Your task to perform on an android device: Open Chrome and go to settings Image 0: 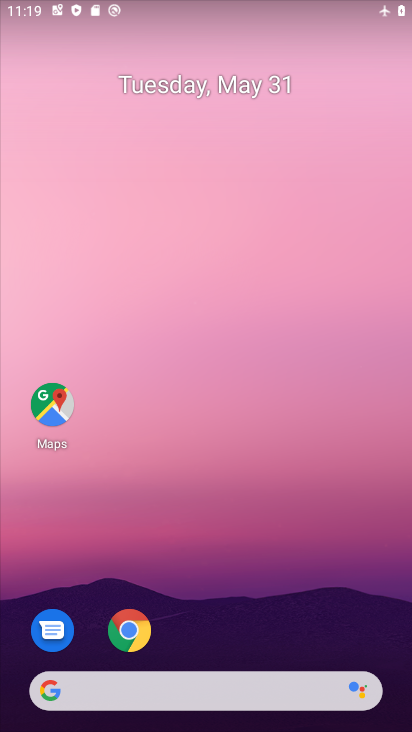
Step 0: drag from (274, 637) to (265, 154)
Your task to perform on an android device: Open Chrome and go to settings Image 1: 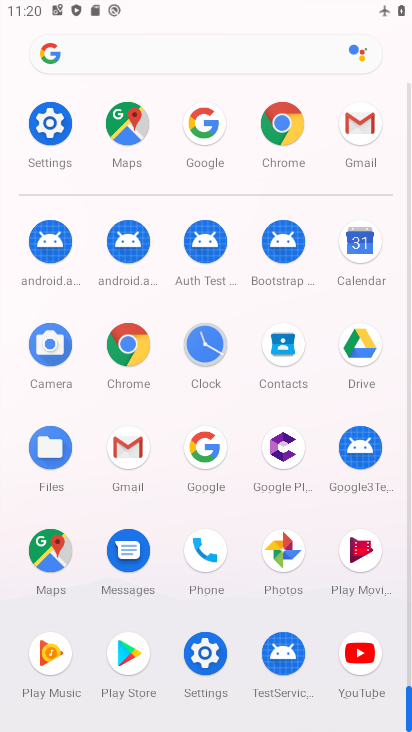
Step 1: click (127, 357)
Your task to perform on an android device: Open Chrome and go to settings Image 2: 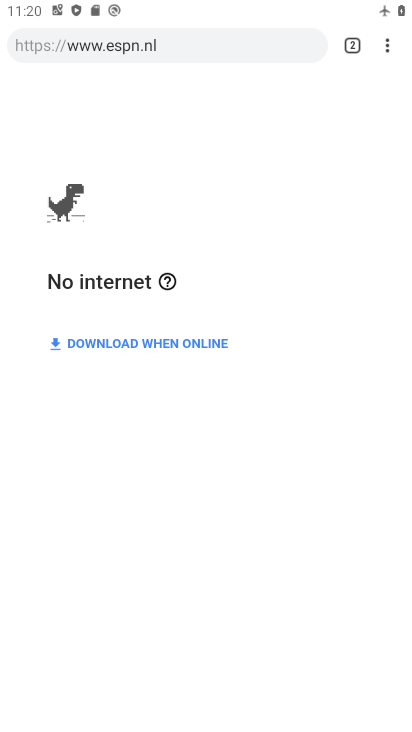
Step 2: click (388, 49)
Your task to perform on an android device: Open Chrome and go to settings Image 3: 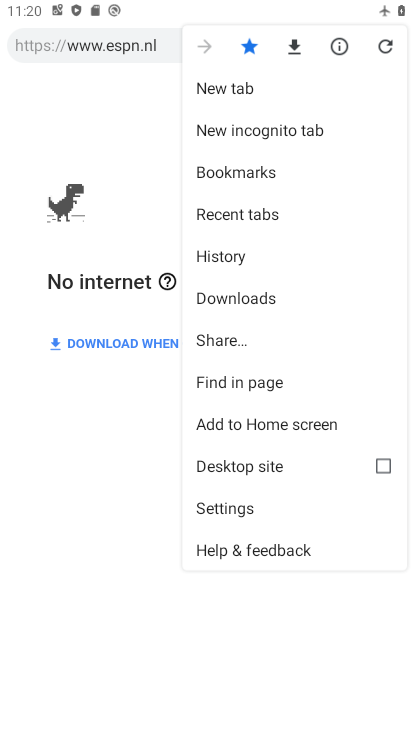
Step 3: click (256, 506)
Your task to perform on an android device: Open Chrome and go to settings Image 4: 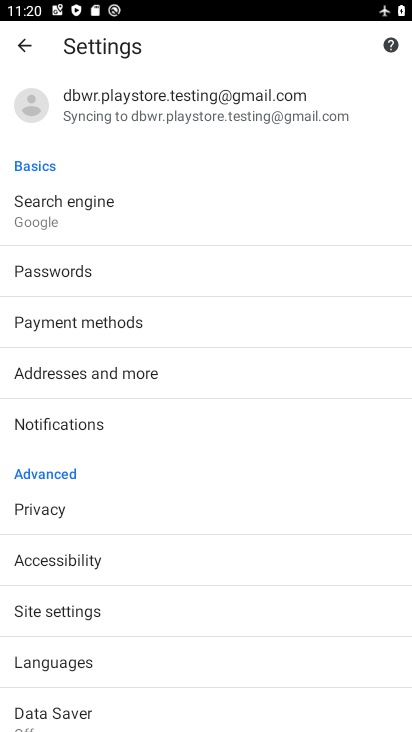
Step 4: task complete